Your task to perform on an android device: check the backup settings in the google photos Image 0: 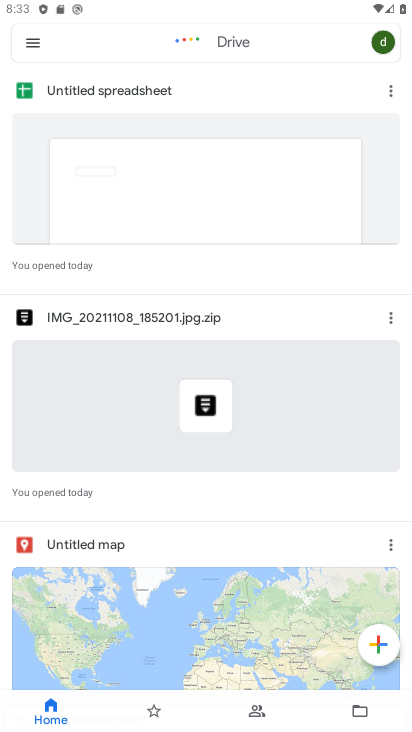
Step 0: press back button
Your task to perform on an android device: check the backup settings in the google photos Image 1: 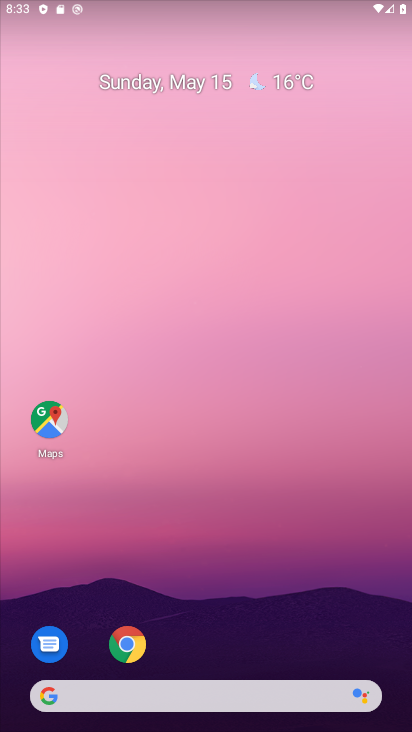
Step 1: drag from (288, 649) to (264, 144)
Your task to perform on an android device: check the backup settings in the google photos Image 2: 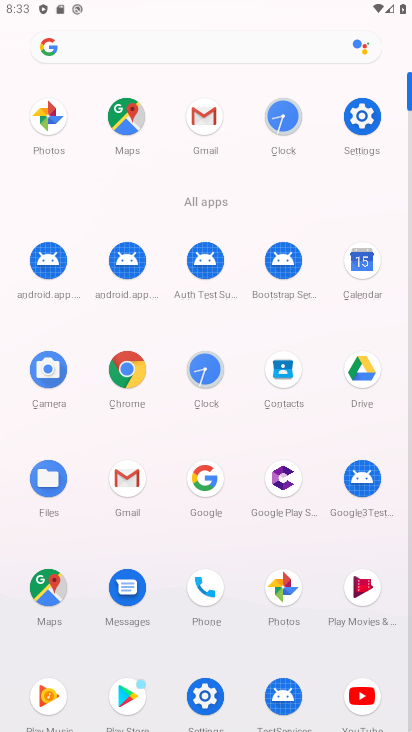
Step 2: click (283, 580)
Your task to perform on an android device: check the backup settings in the google photos Image 3: 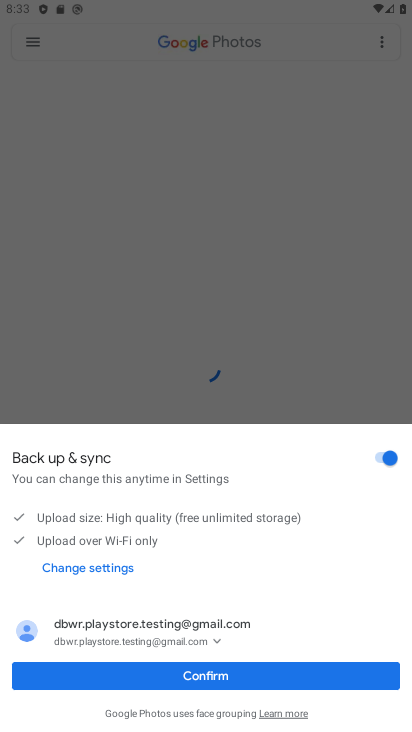
Step 3: click (232, 678)
Your task to perform on an android device: check the backup settings in the google photos Image 4: 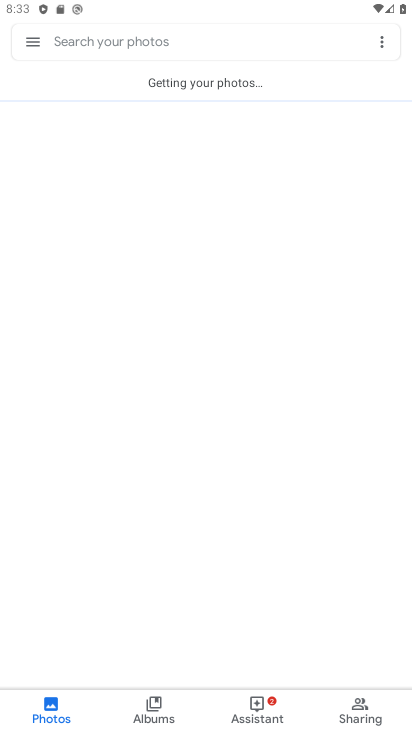
Step 4: click (40, 40)
Your task to perform on an android device: check the backup settings in the google photos Image 5: 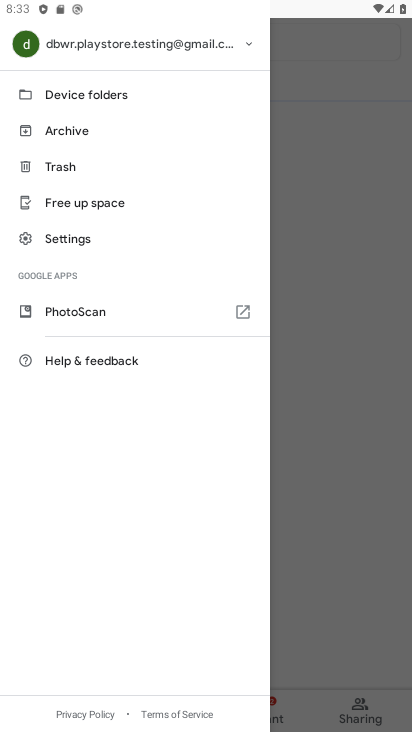
Step 5: click (79, 236)
Your task to perform on an android device: check the backup settings in the google photos Image 6: 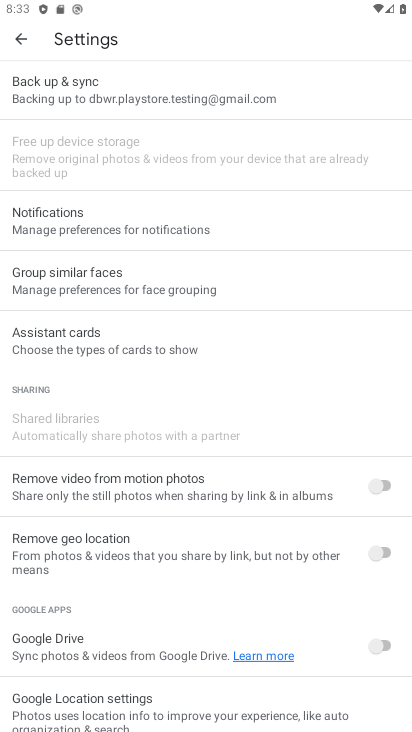
Step 6: click (113, 82)
Your task to perform on an android device: check the backup settings in the google photos Image 7: 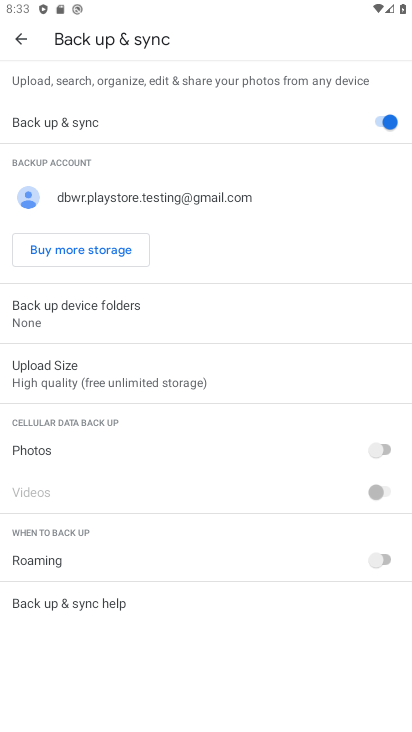
Step 7: task complete